Your task to perform on an android device: What is the speed of a bicycle? Image 0: 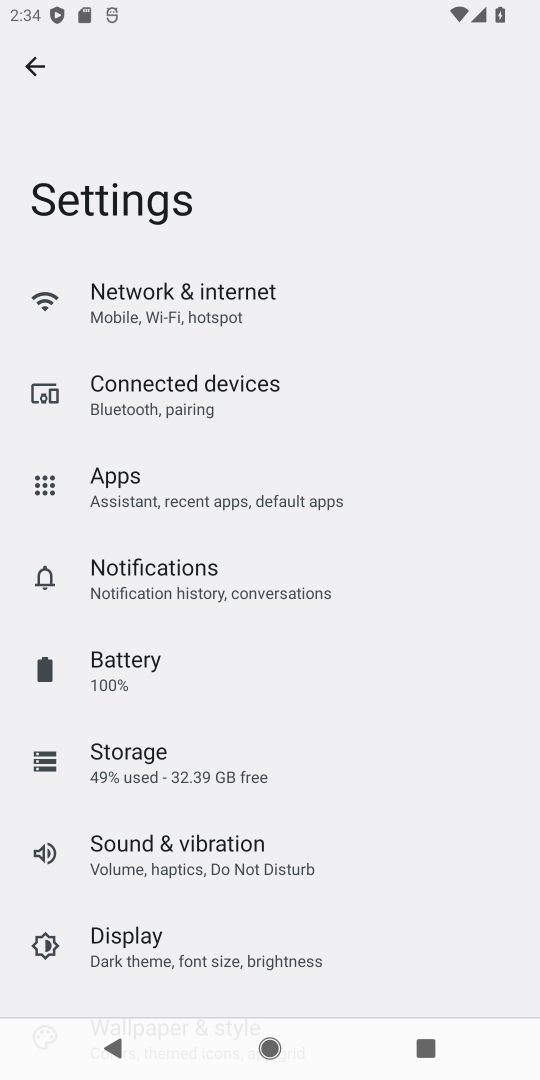
Step 0: press home button
Your task to perform on an android device: What is the speed of a bicycle? Image 1: 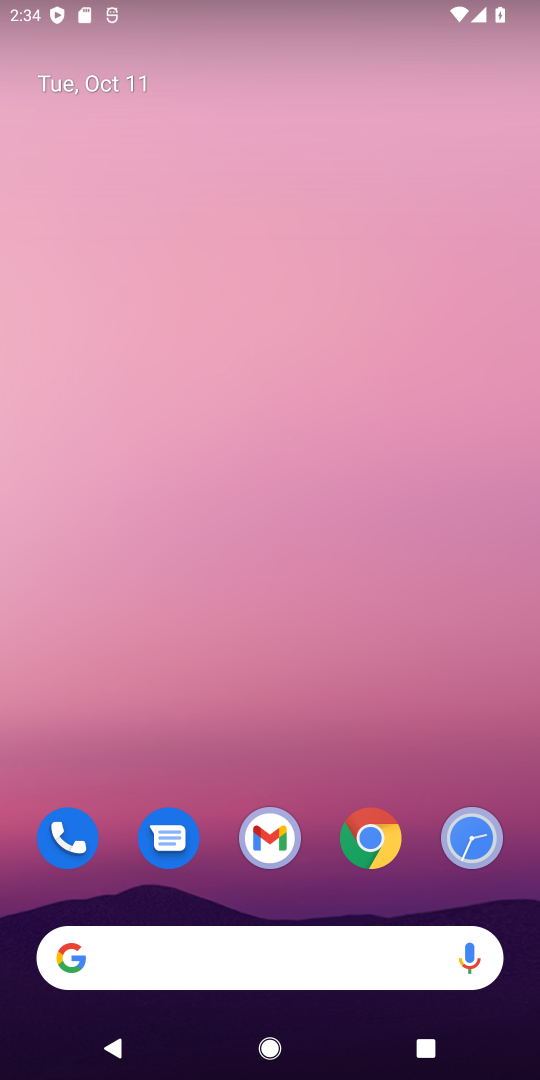
Step 1: click (384, 850)
Your task to perform on an android device: What is the speed of a bicycle? Image 2: 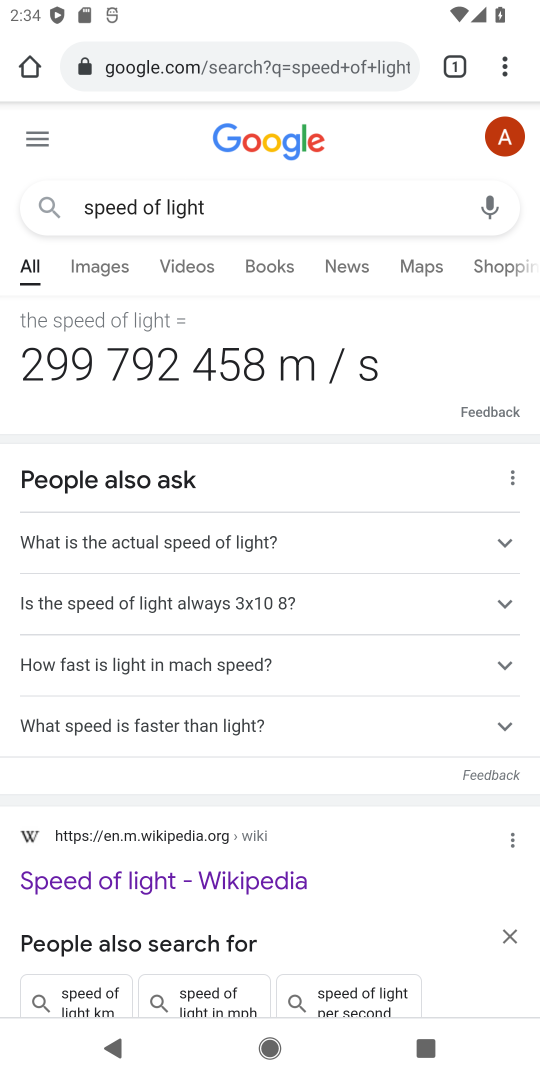
Step 2: click (237, 57)
Your task to perform on an android device: What is the speed of a bicycle? Image 3: 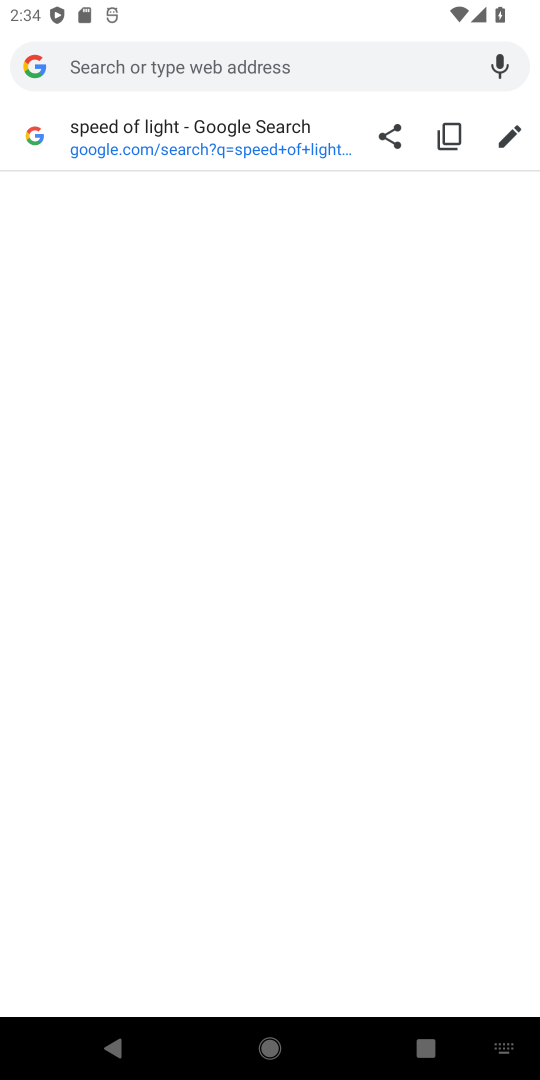
Step 3: type "speed of bicycle"
Your task to perform on an android device: What is the speed of a bicycle? Image 4: 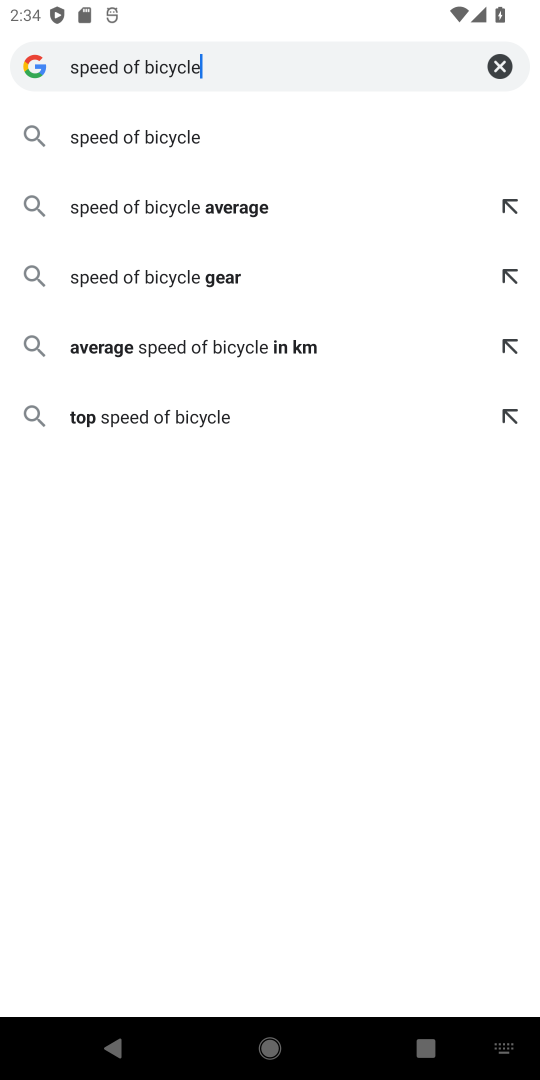
Step 4: click (140, 129)
Your task to perform on an android device: What is the speed of a bicycle? Image 5: 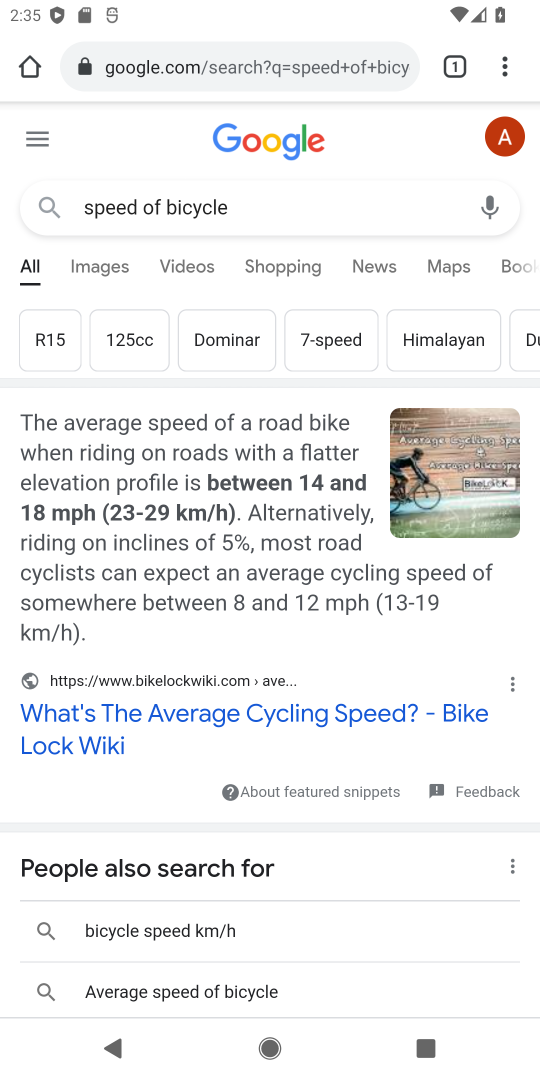
Step 5: click (168, 997)
Your task to perform on an android device: What is the speed of a bicycle? Image 6: 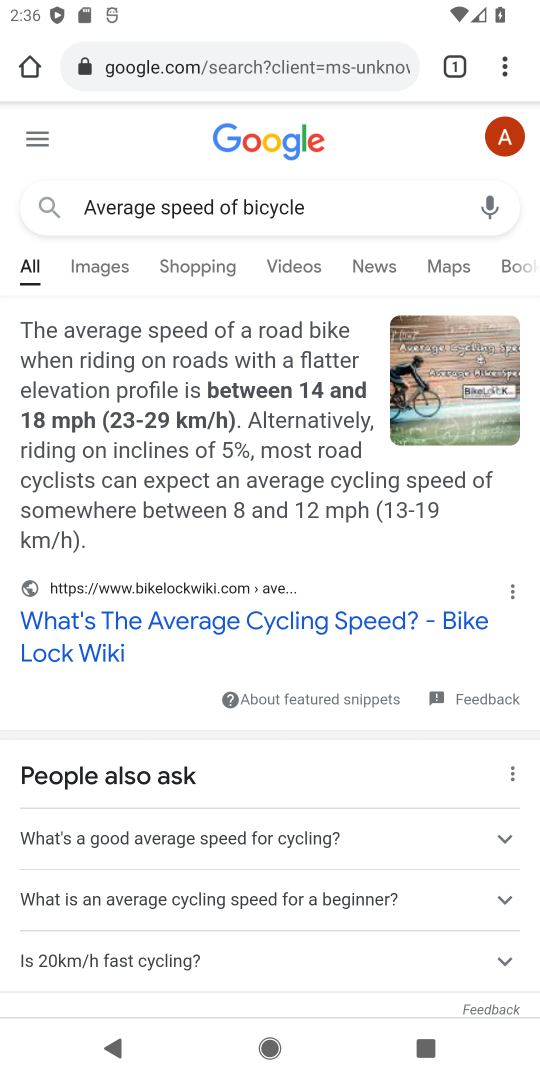
Step 6: task complete